Your task to perform on an android device: turn on the 12-hour format for clock Image 0: 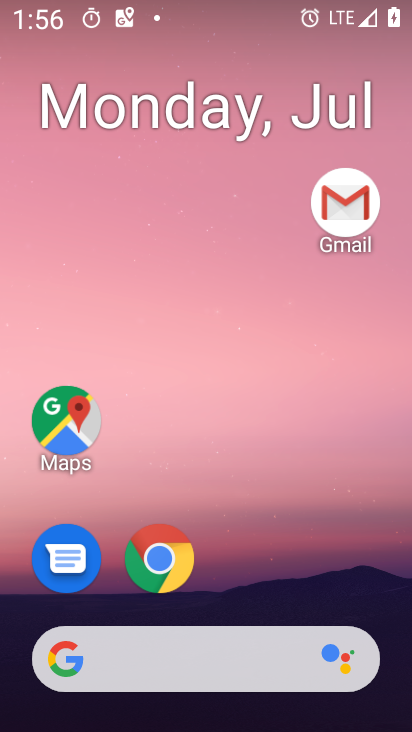
Step 0: drag from (321, 576) to (364, 113)
Your task to perform on an android device: turn on the 12-hour format for clock Image 1: 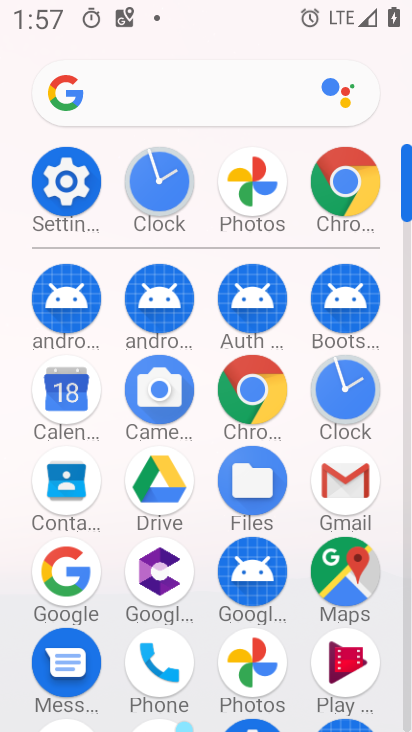
Step 1: click (338, 388)
Your task to perform on an android device: turn on the 12-hour format for clock Image 2: 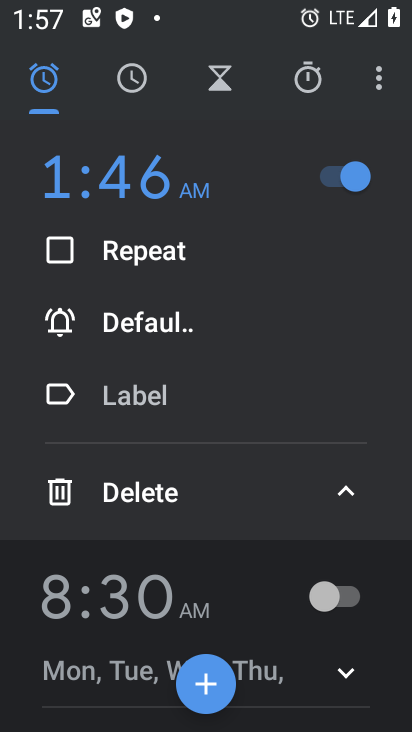
Step 2: click (376, 84)
Your task to perform on an android device: turn on the 12-hour format for clock Image 3: 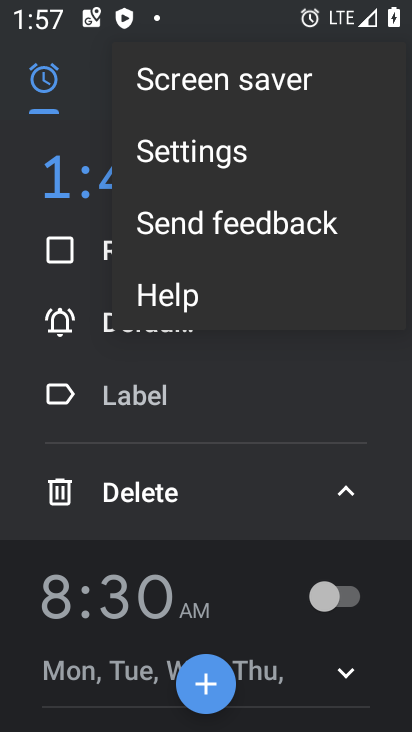
Step 3: click (256, 154)
Your task to perform on an android device: turn on the 12-hour format for clock Image 4: 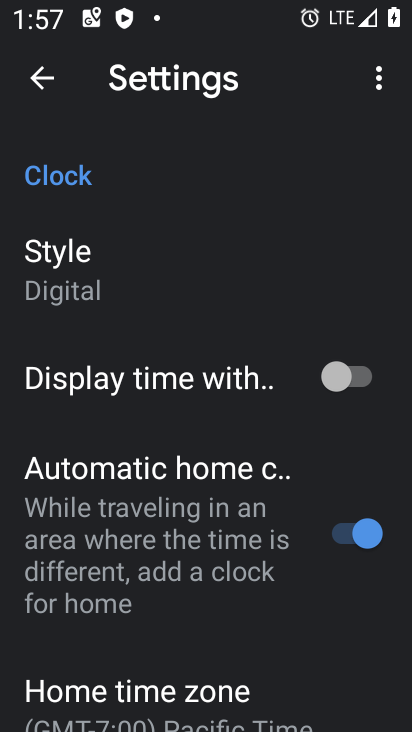
Step 4: drag from (258, 644) to (271, 566)
Your task to perform on an android device: turn on the 12-hour format for clock Image 5: 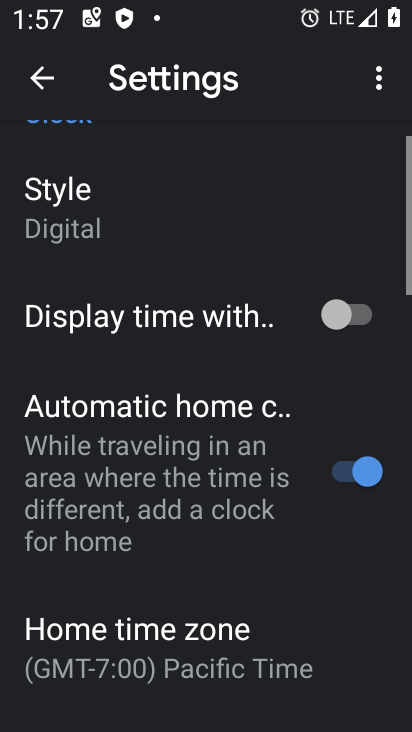
Step 5: drag from (277, 652) to (286, 565)
Your task to perform on an android device: turn on the 12-hour format for clock Image 6: 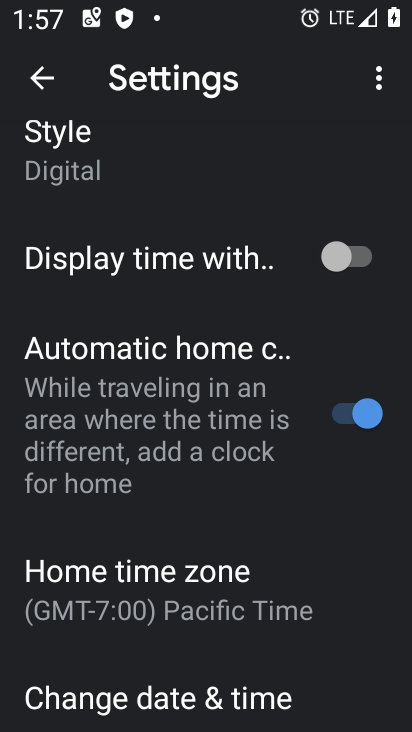
Step 6: drag from (273, 641) to (287, 555)
Your task to perform on an android device: turn on the 12-hour format for clock Image 7: 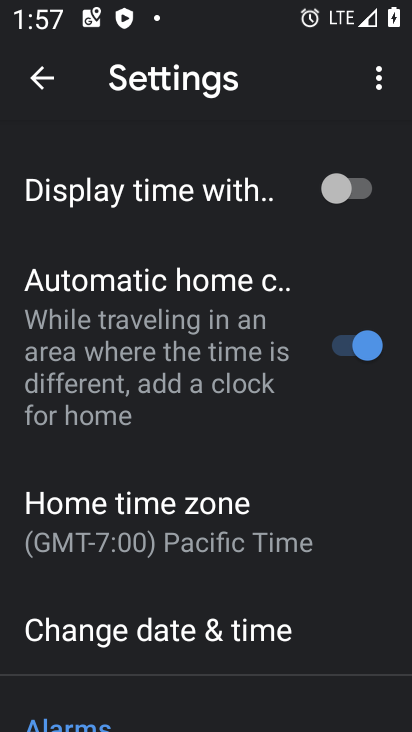
Step 7: drag from (286, 672) to (286, 567)
Your task to perform on an android device: turn on the 12-hour format for clock Image 8: 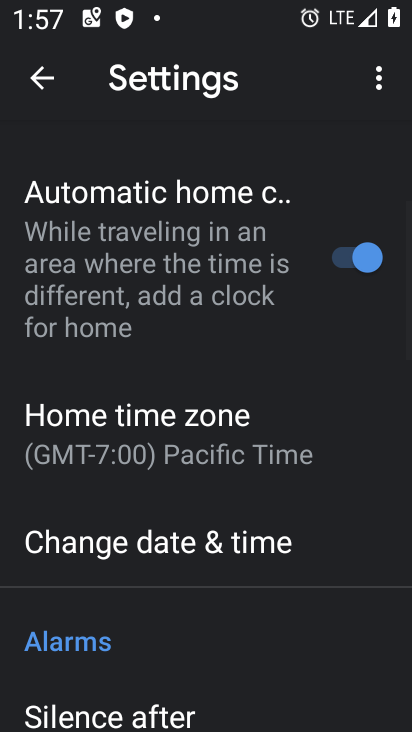
Step 8: drag from (286, 651) to (288, 546)
Your task to perform on an android device: turn on the 12-hour format for clock Image 9: 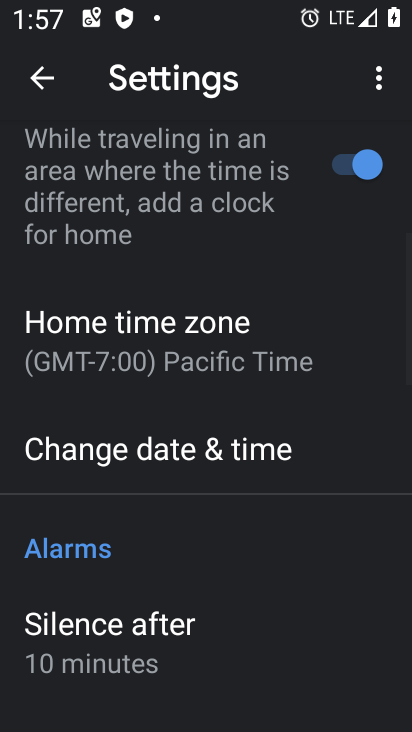
Step 9: drag from (288, 648) to (289, 529)
Your task to perform on an android device: turn on the 12-hour format for clock Image 10: 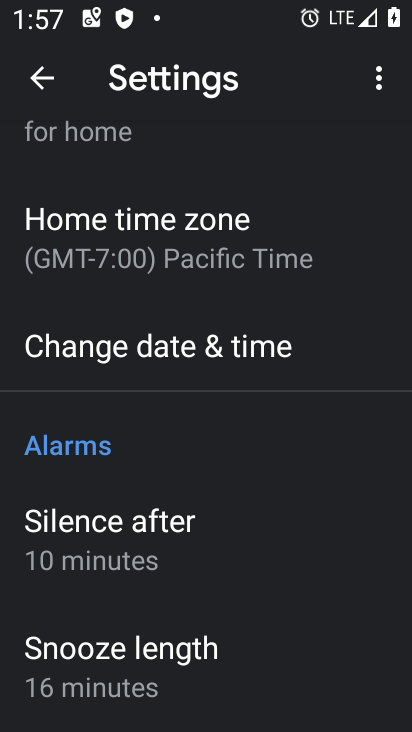
Step 10: drag from (280, 593) to (293, 509)
Your task to perform on an android device: turn on the 12-hour format for clock Image 11: 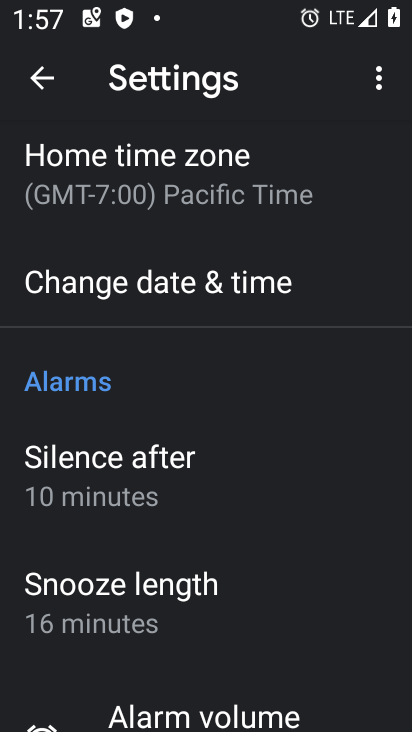
Step 11: click (308, 288)
Your task to perform on an android device: turn on the 12-hour format for clock Image 12: 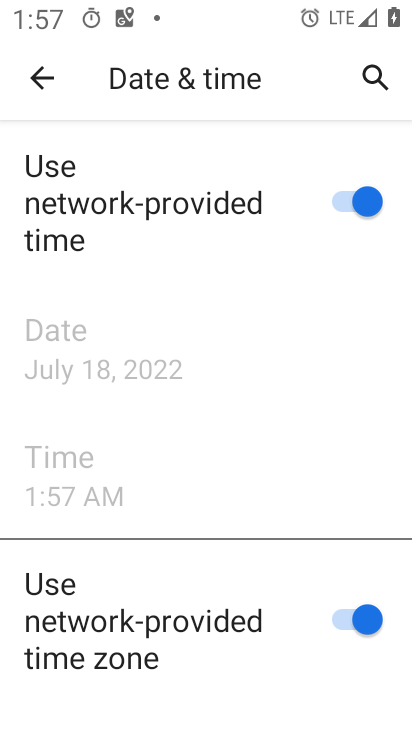
Step 12: task complete